Your task to perform on an android device: install app "Messages" Image 0: 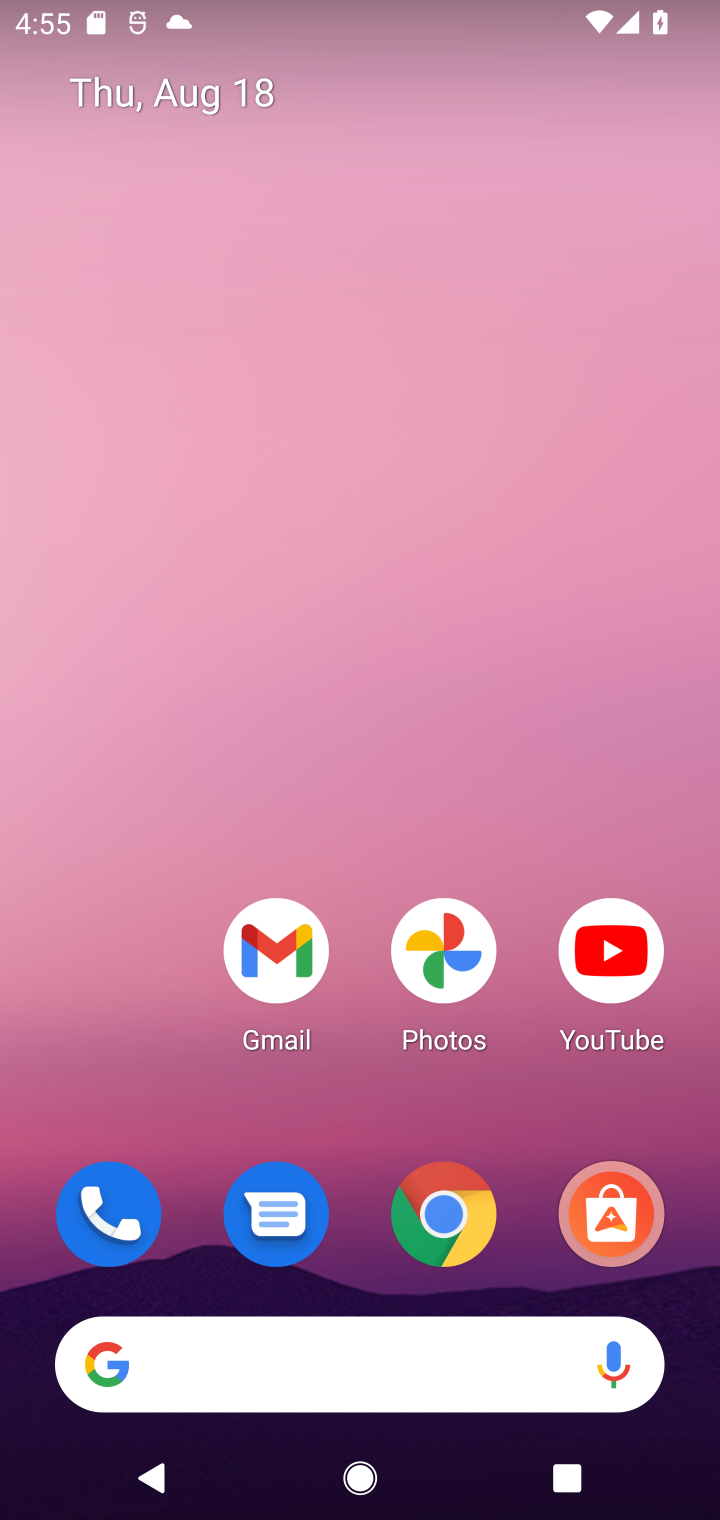
Step 0: drag from (318, 772) to (372, 341)
Your task to perform on an android device: install app "Messages" Image 1: 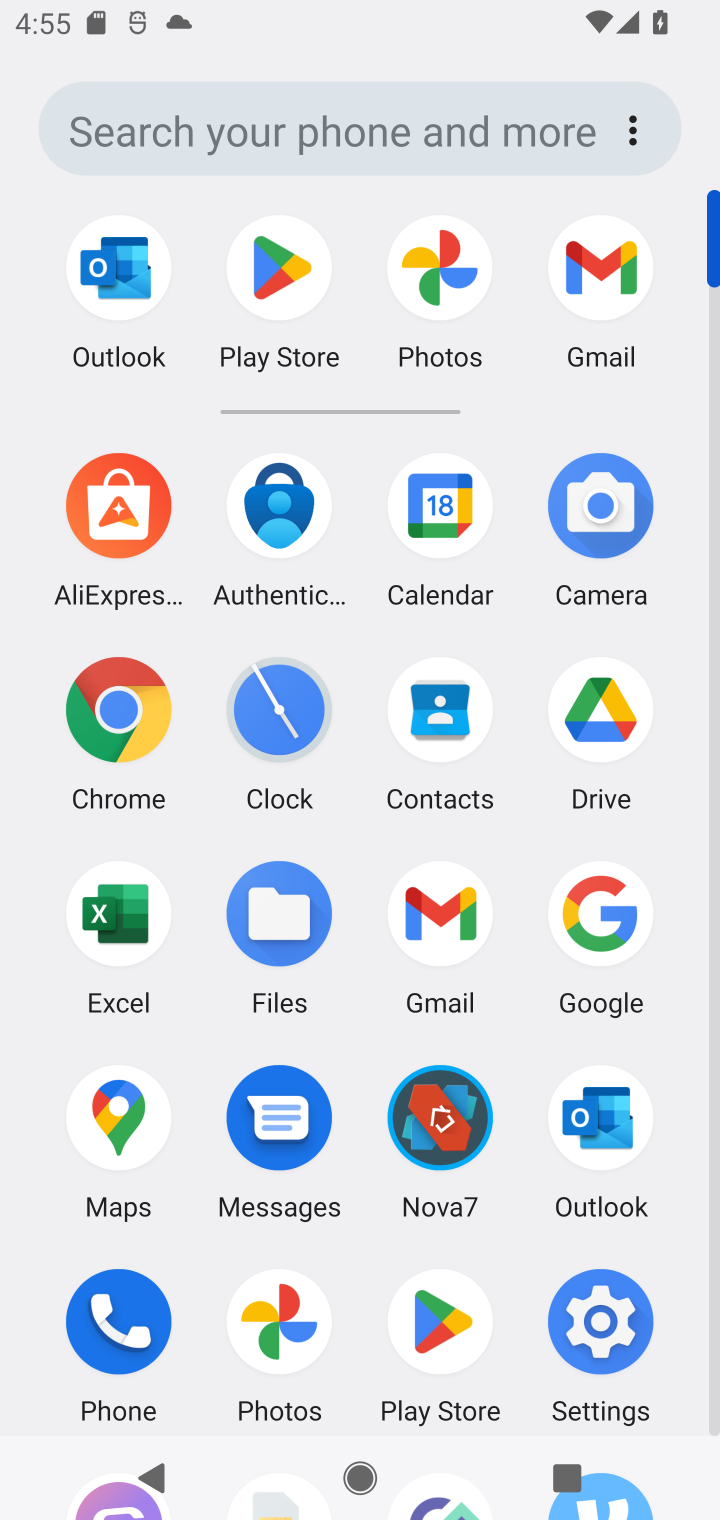
Step 1: click (282, 312)
Your task to perform on an android device: install app "Messages" Image 2: 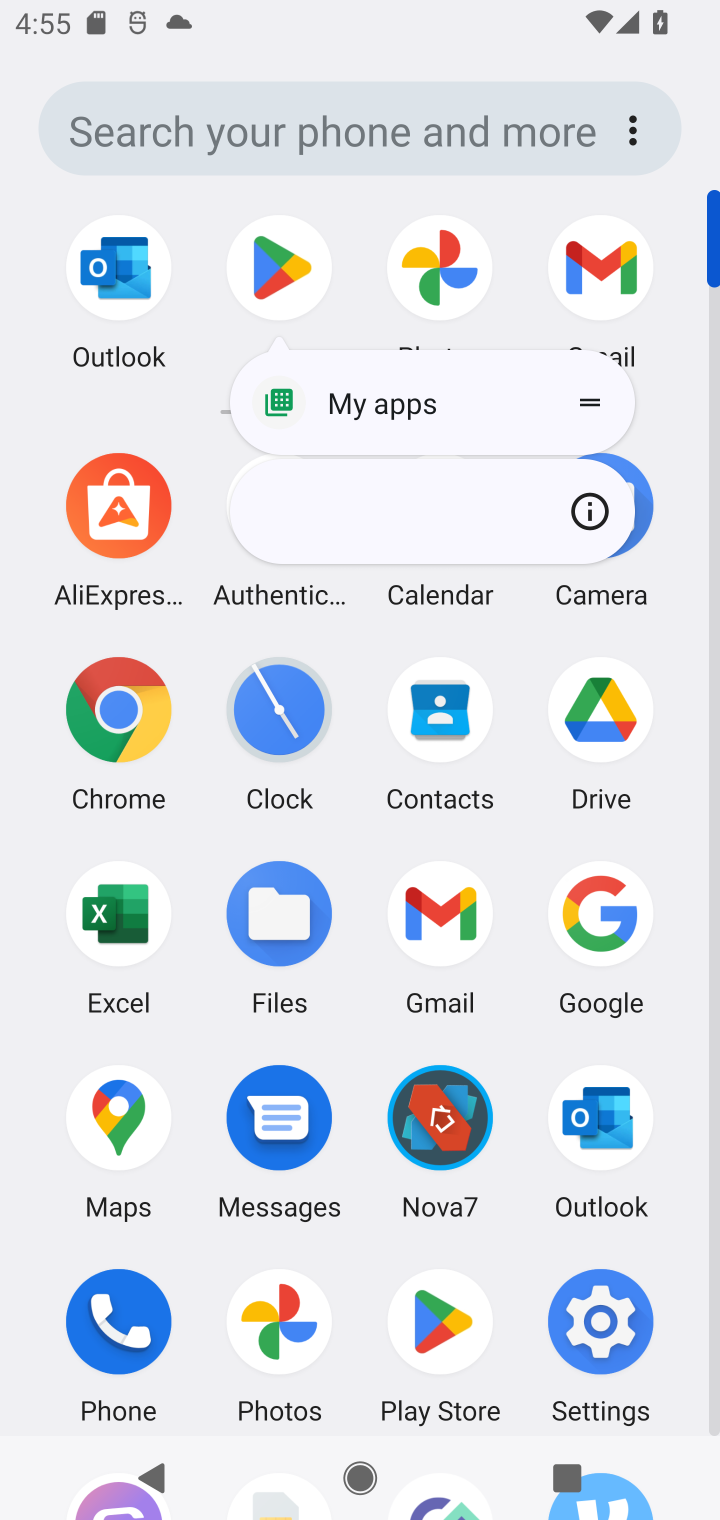
Step 2: click (286, 316)
Your task to perform on an android device: install app "Messages" Image 3: 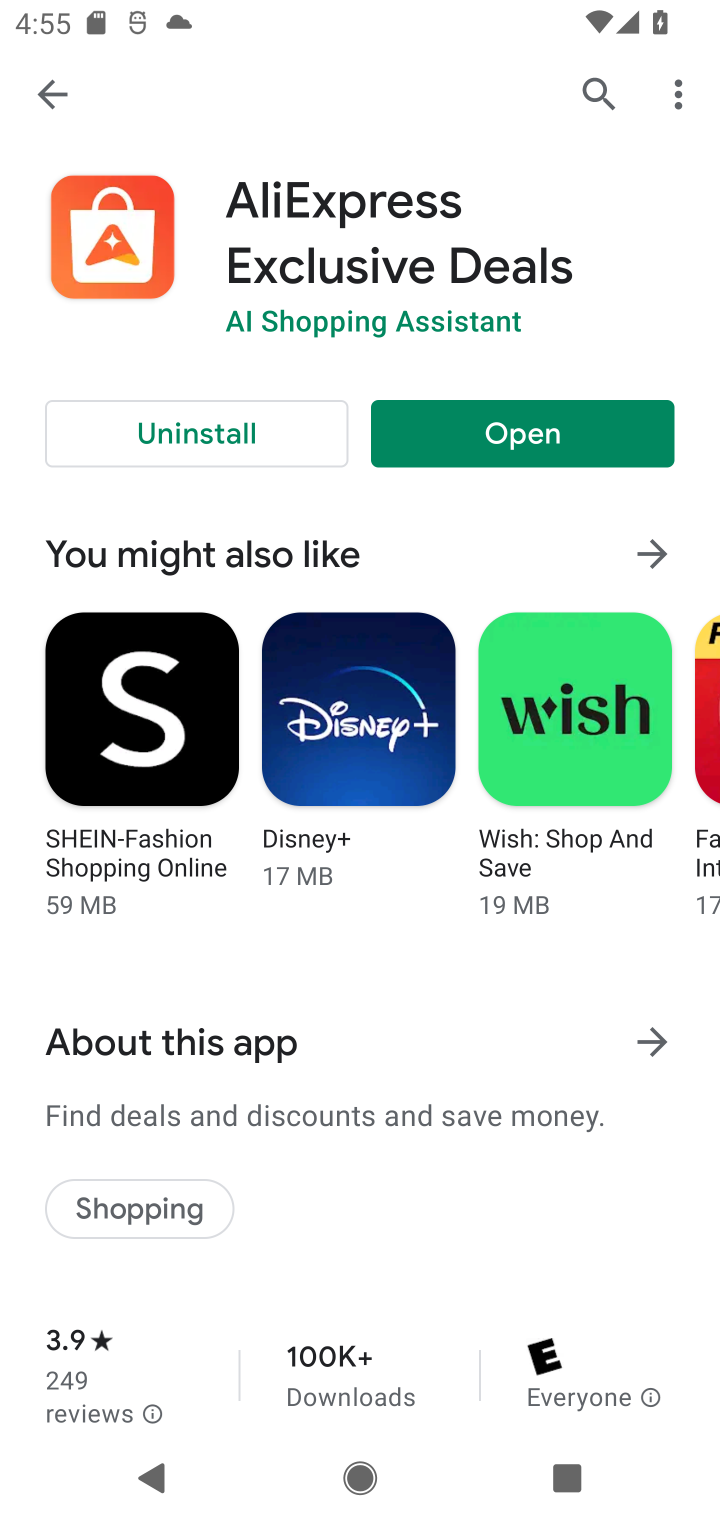
Step 3: click (51, 85)
Your task to perform on an android device: install app "Messages" Image 4: 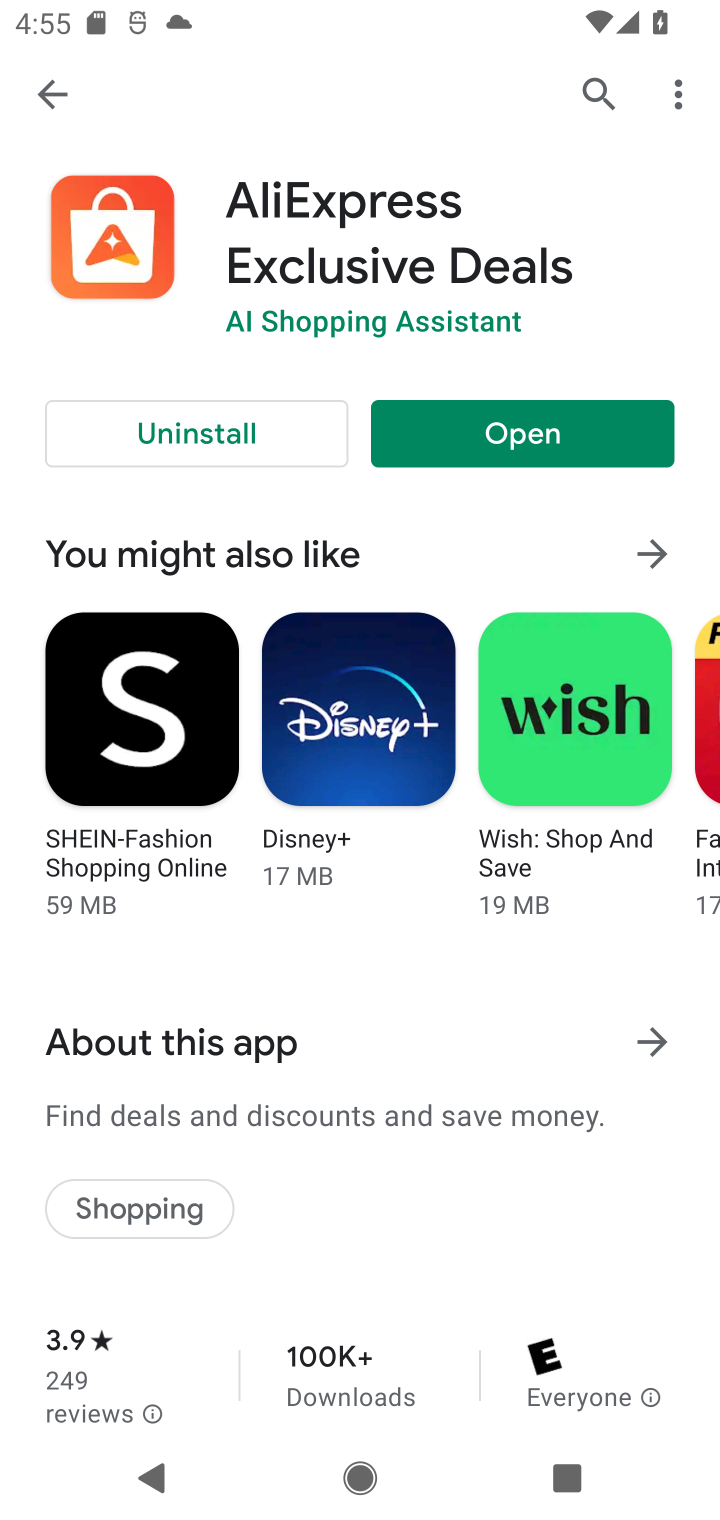
Step 4: click (57, 94)
Your task to perform on an android device: install app "Messages" Image 5: 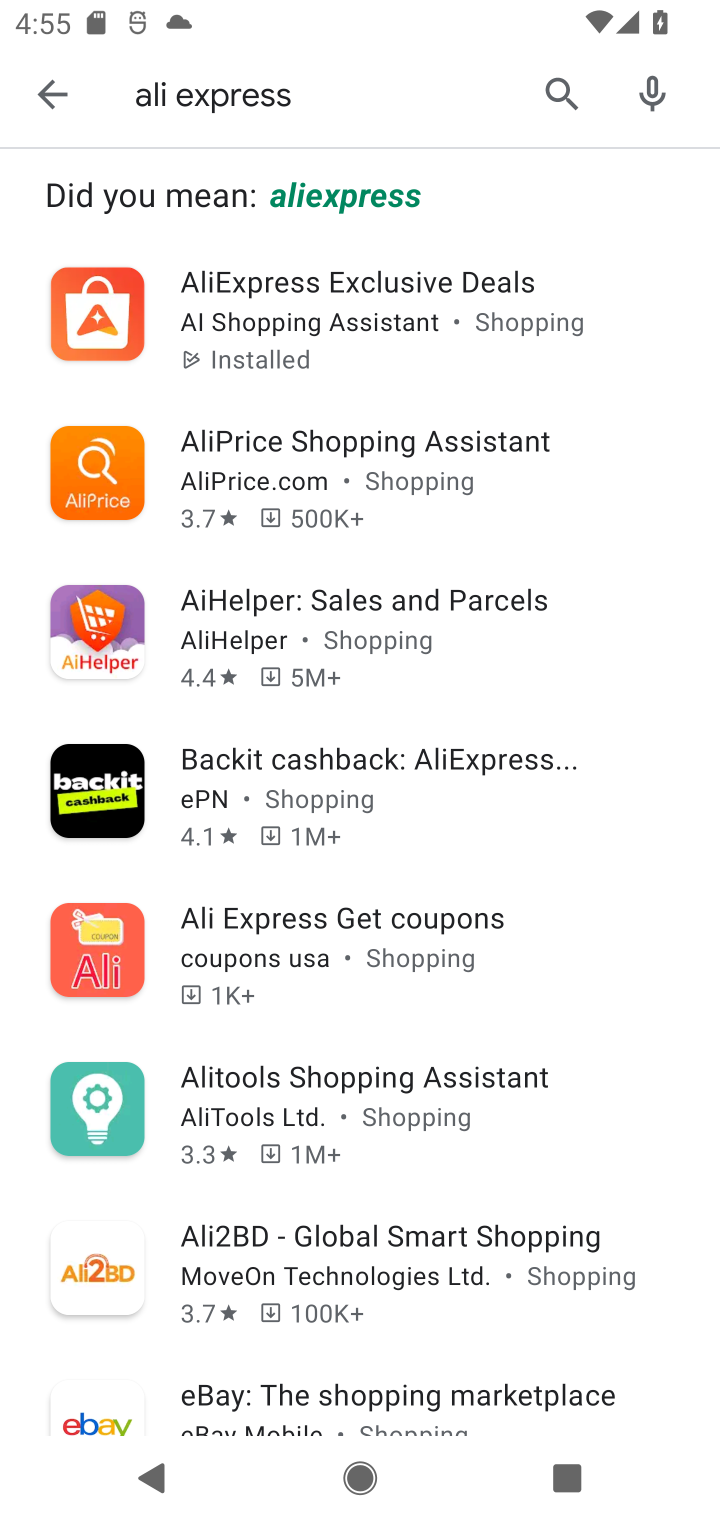
Step 5: click (308, 98)
Your task to perform on an android device: install app "Messages" Image 6: 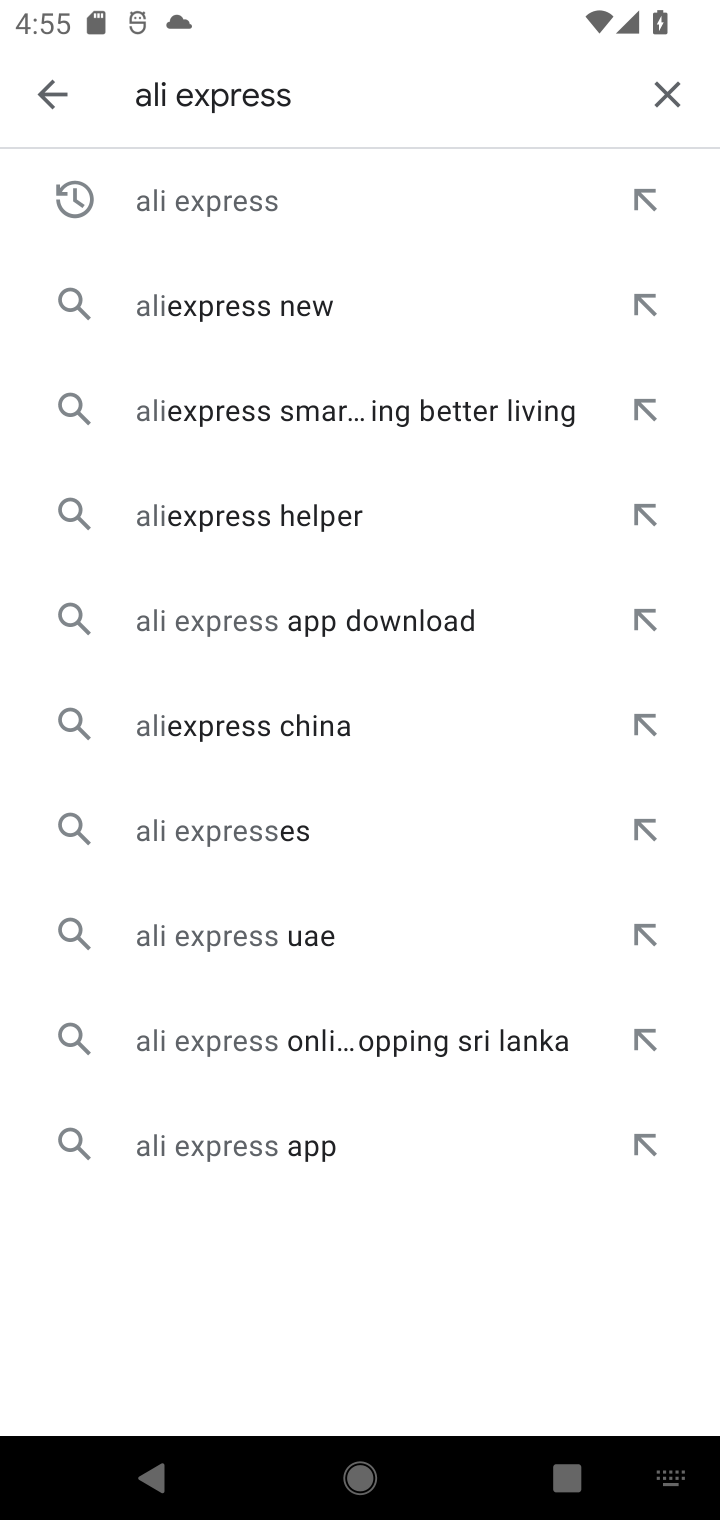
Step 6: click (669, 94)
Your task to perform on an android device: install app "Messages" Image 7: 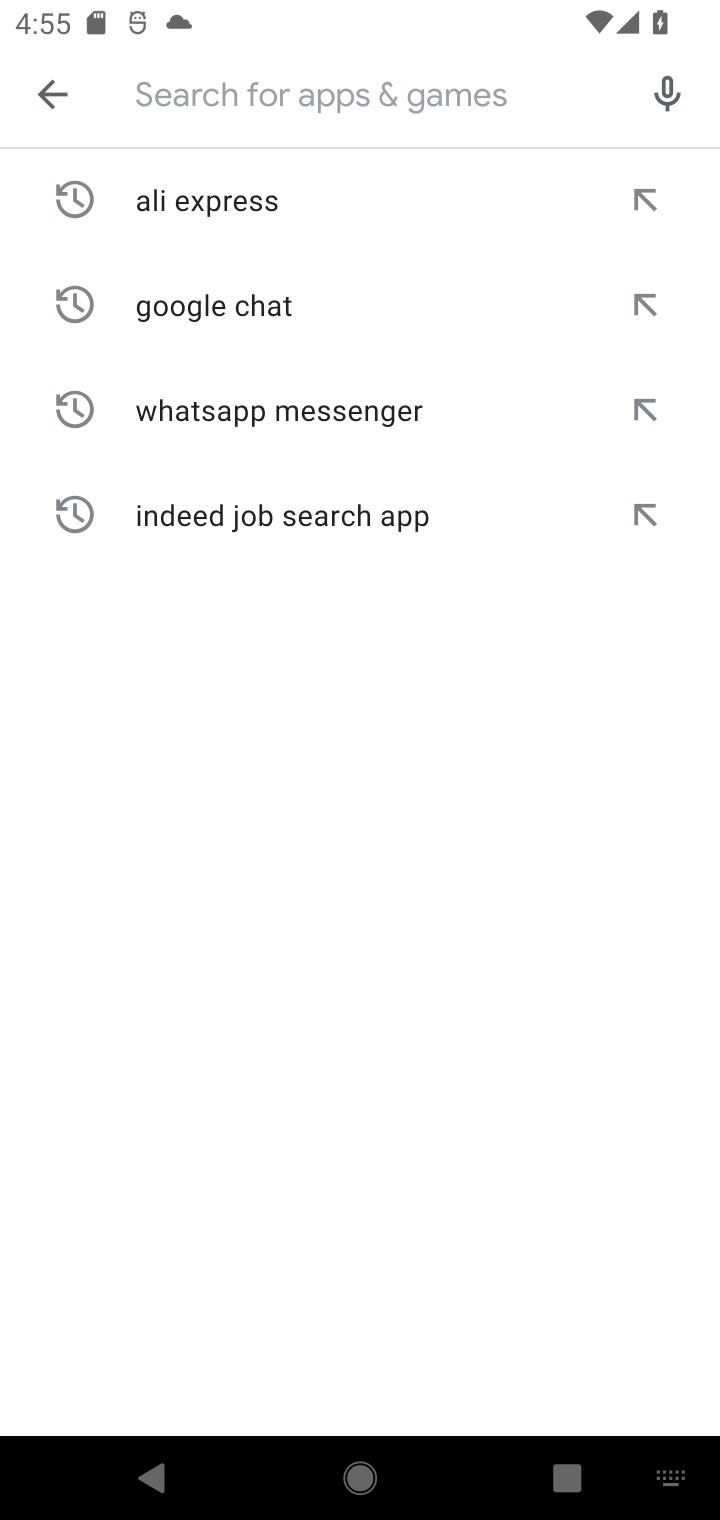
Step 7: type "Messages"
Your task to perform on an android device: install app "Messages" Image 8: 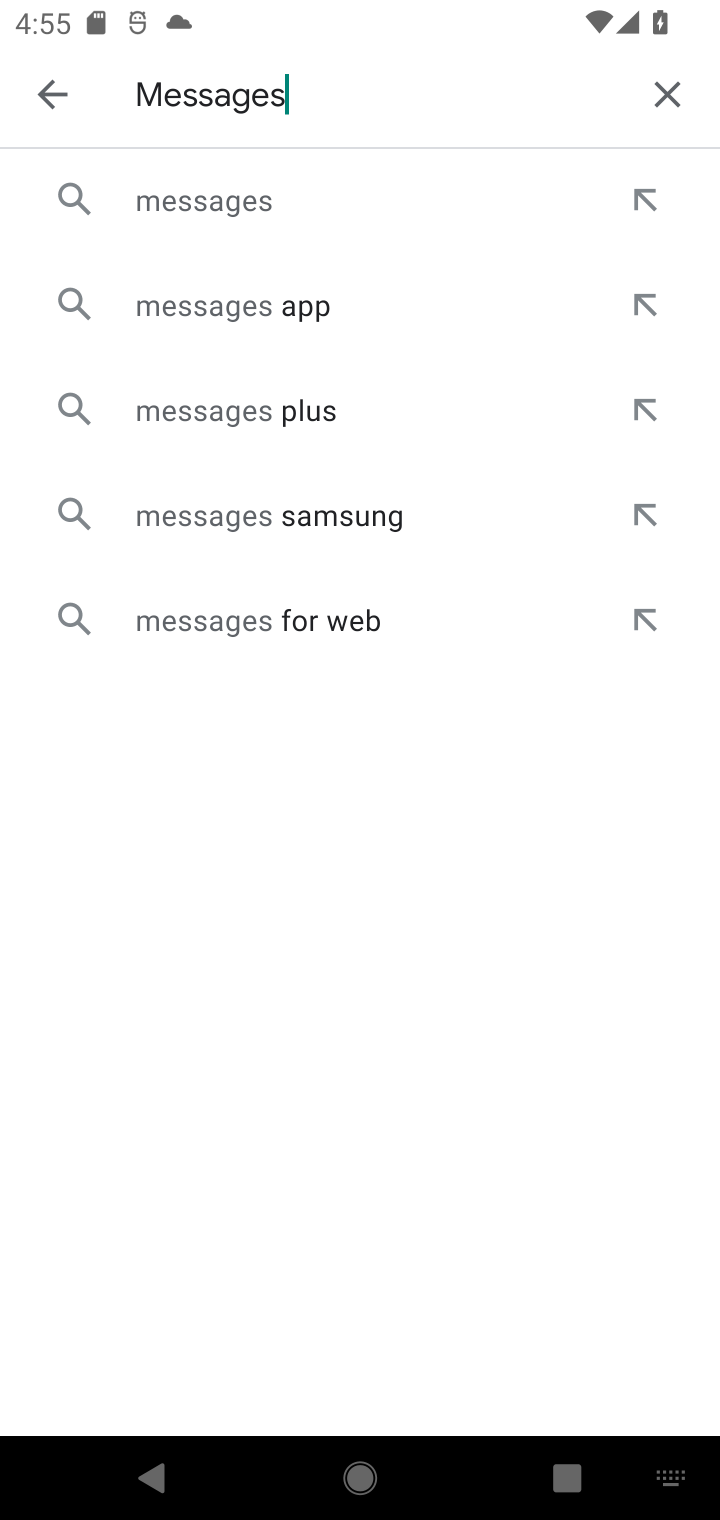
Step 8: click (253, 201)
Your task to perform on an android device: install app "Messages" Image 9: 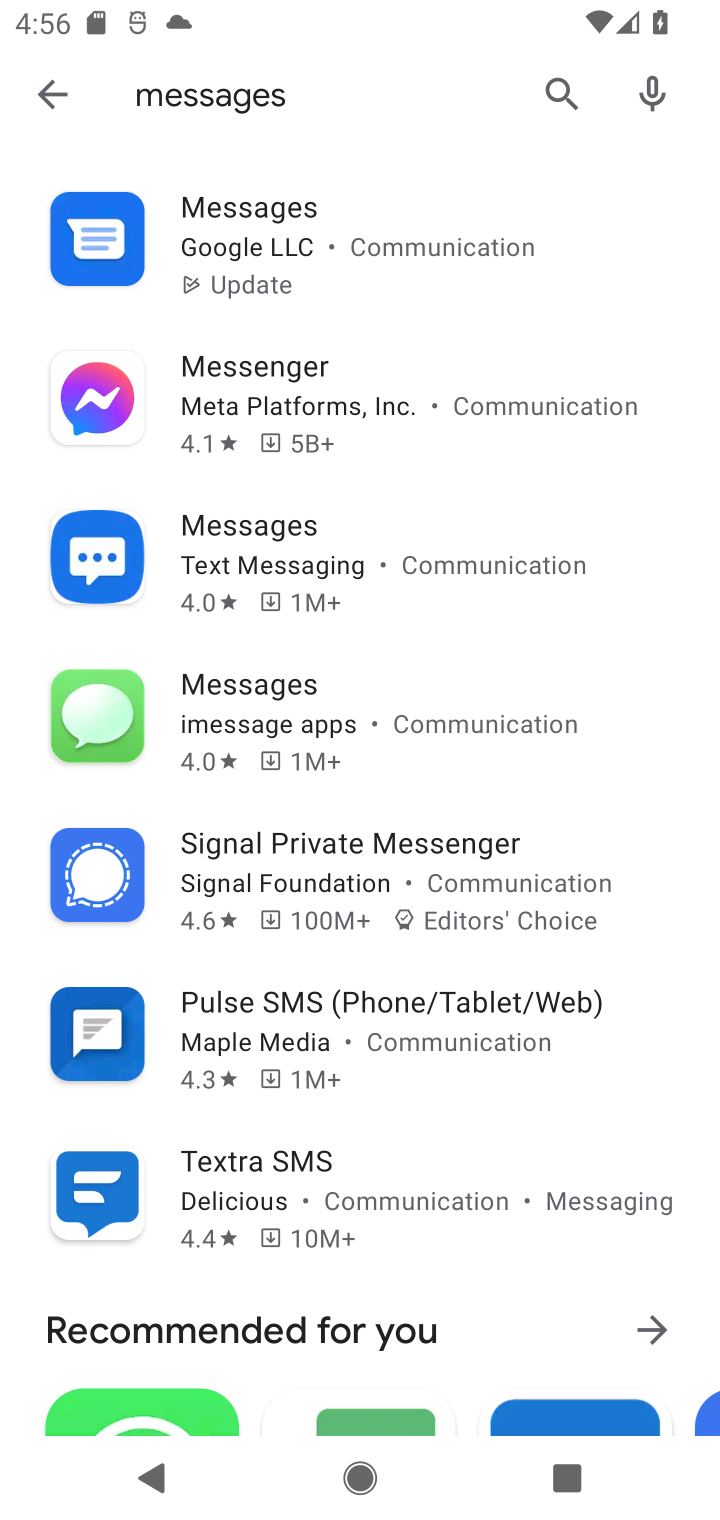
Step 9: click (317, 262)
Your task to perform on an android device: install app "Messages" Image 10: 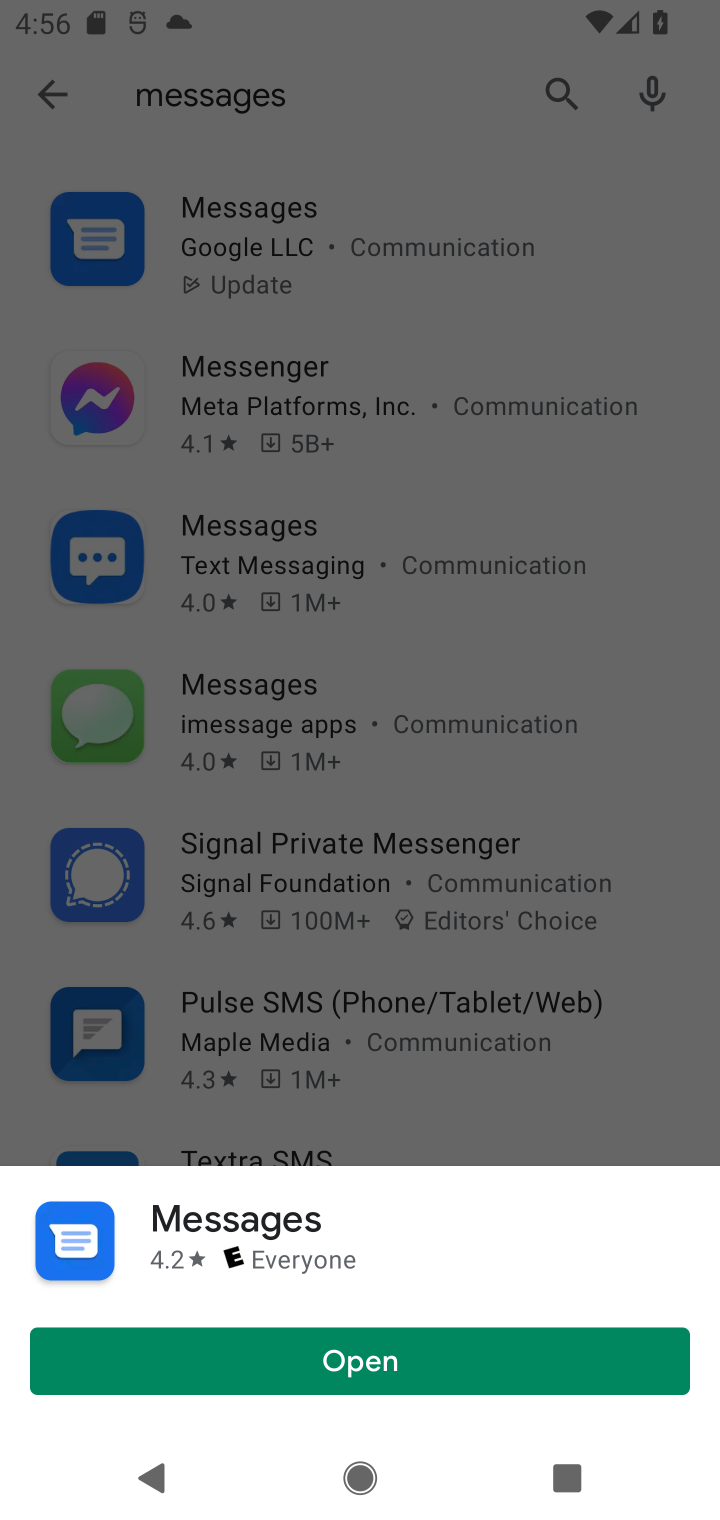
Step 10: task complete